Your task to perform on an android device: Open Amazon Image 0: 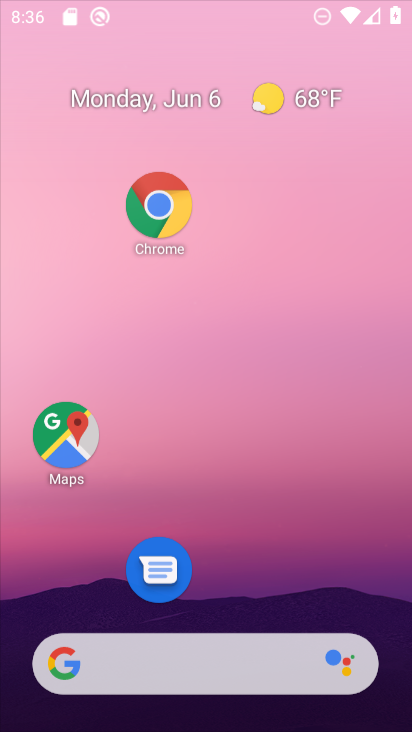
Step 0: click (214, 39)
Your task to perform on an android device: Open Amazon Image 1: 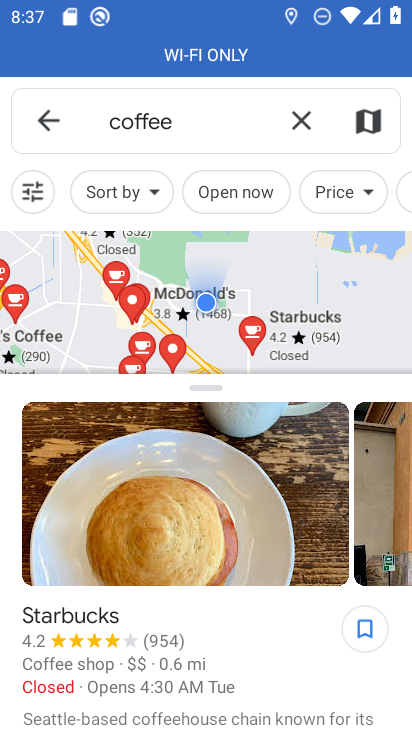
Step 1: click (32, 115)
Your task to perform on an android device: Open Amazon Image 2: 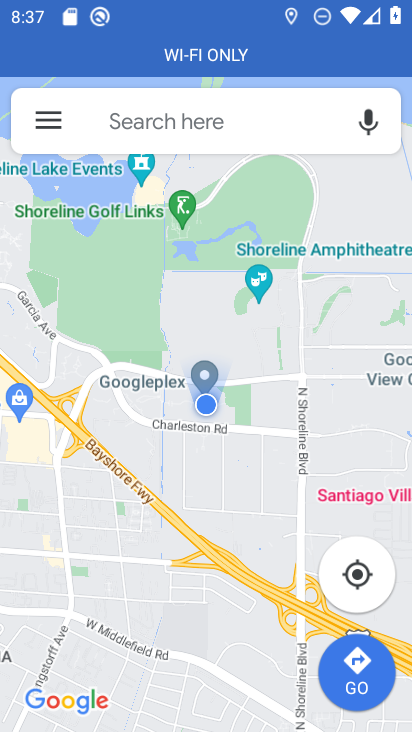
Step 2: press back button
Your task to perform on an android device: Open Amazon Image 3: 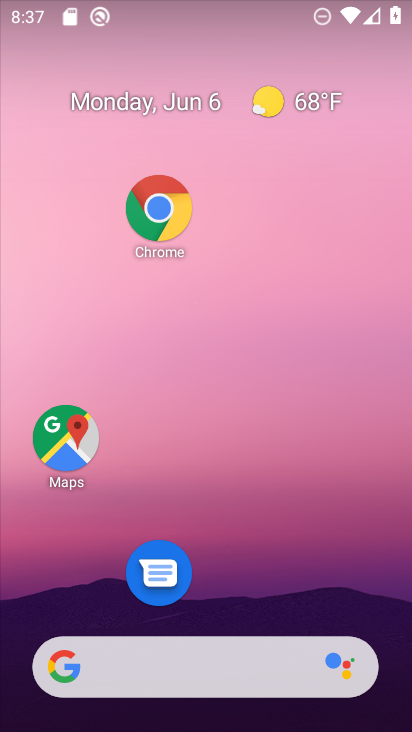
Step 3: drag from (229, 693) to (152, 22)
Your task to perform on an android device: Open Amazon Image 4: 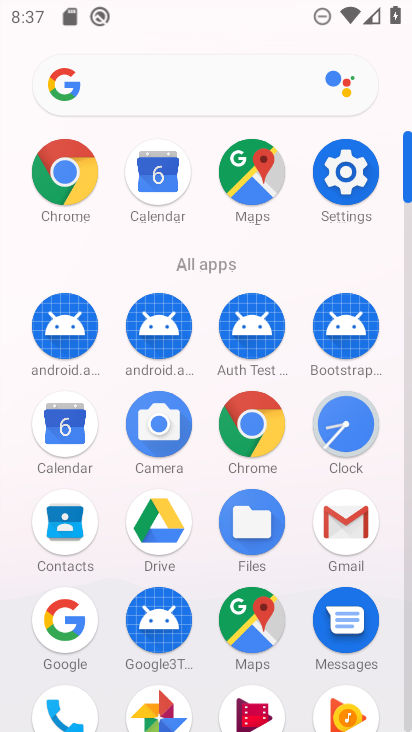
Step 4: click (74, 170)
Your task to perform on an android device: Open Amazon Image 5: 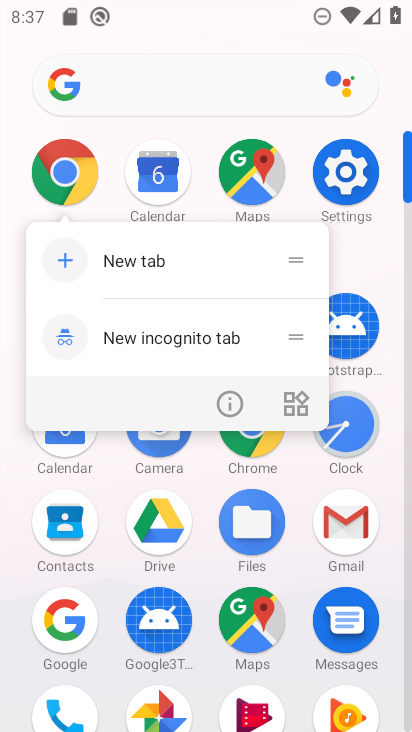
Step 5: click (153, 268)
Your task to perform on an android device: Open Amazon Image 6: 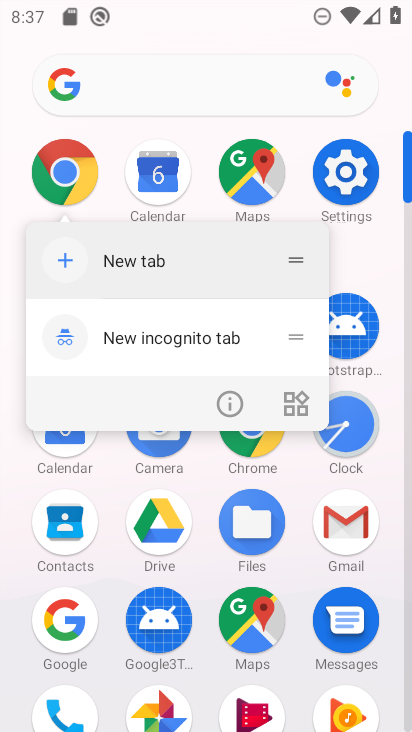
Step 6: click (153, 268)
Your task to perform on an android device: Open Amazon Image 7: 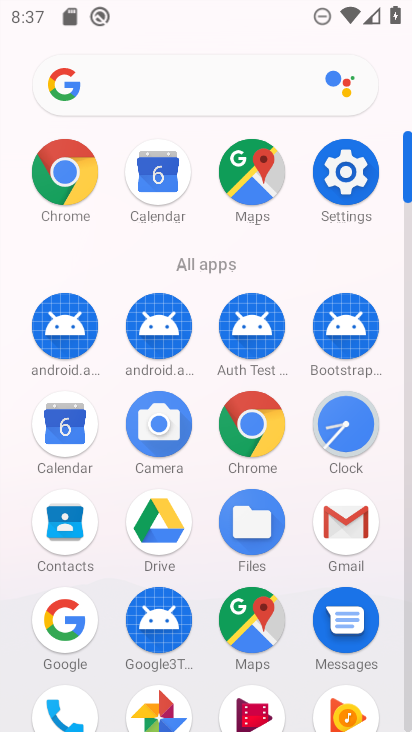
Step 7: click (153, 268)
Your task to perform on an android device: Open Amazon Image 8: 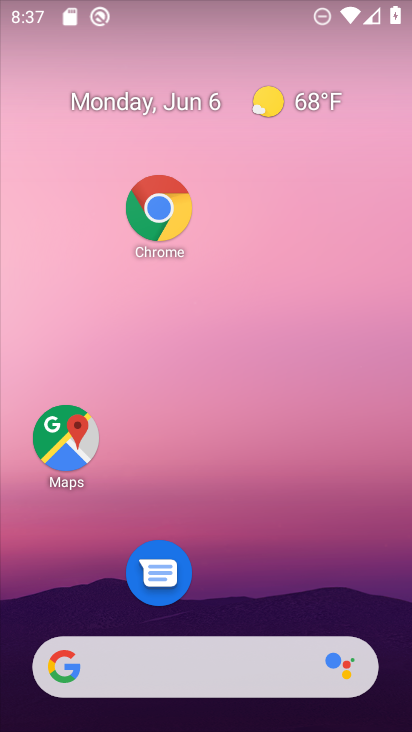
Step 8: drag from (230, 699) to (185, 162)
Your task to perform on an android device: Open Amazon Image 9: 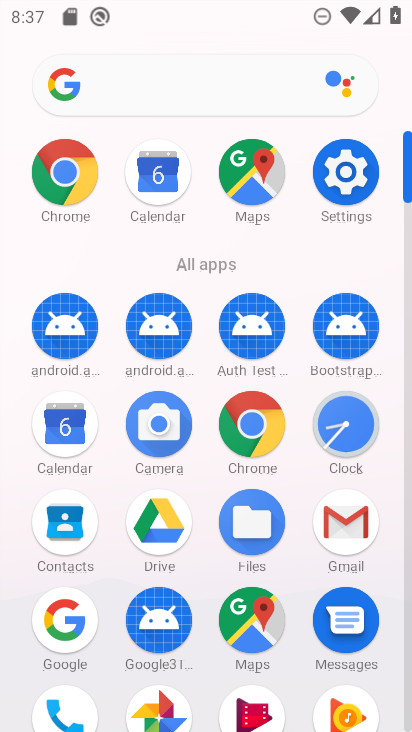
Step 9: click (58, 180)
Your task to perform on an android device: Open Amazon Image 10: 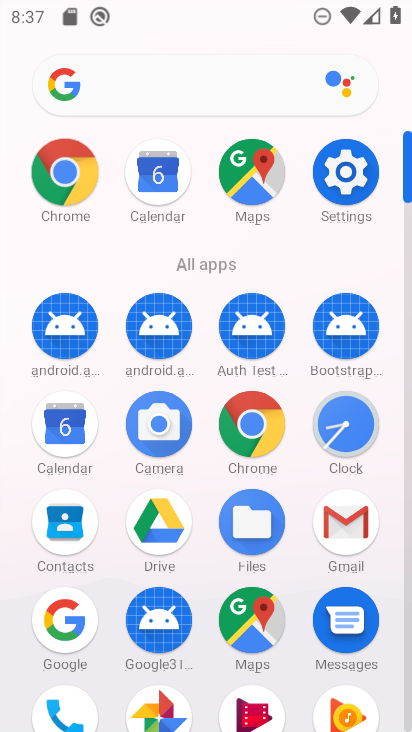
Step 10: click (65, 171)
Your task to perform on an android device: Open Amazon Image 11: 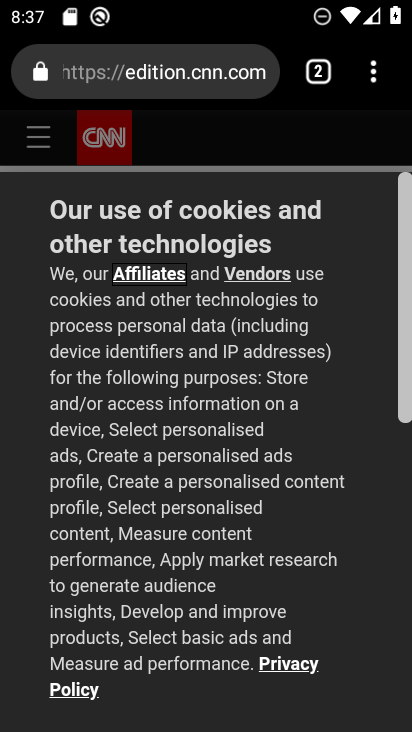
Step 11: click (369, 71)
Your task to perform on an android device: Open Amazon Image 12: 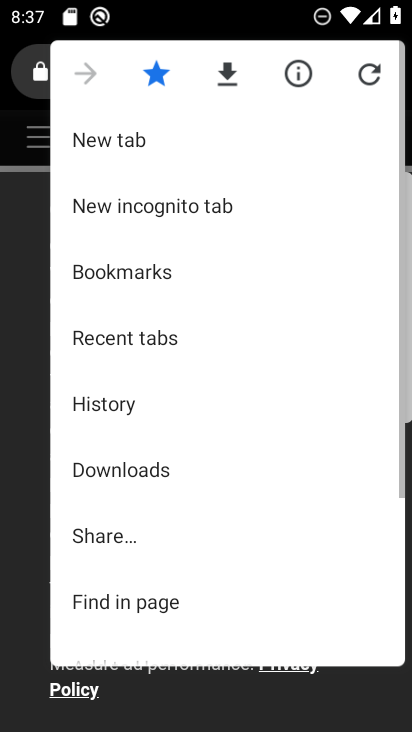
Step 12: drag from (369, 71) to (85, 130)
Your task to perform on an android device: Open Amazon Image 13: 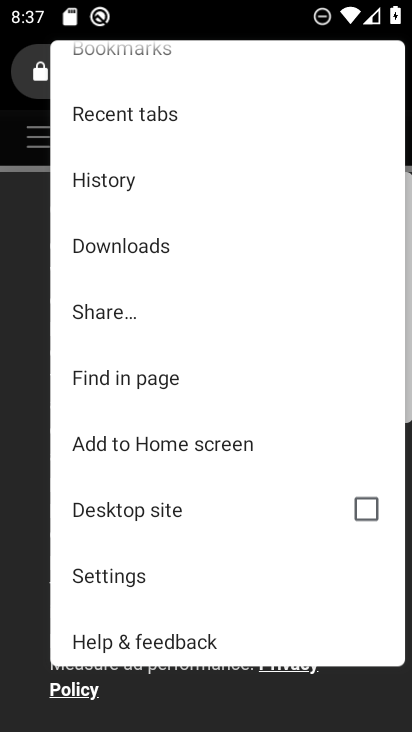
Step 13: drag from (205, 152) to (208, 455)
Your task to perform on an android device: Open Amazon Image 14: 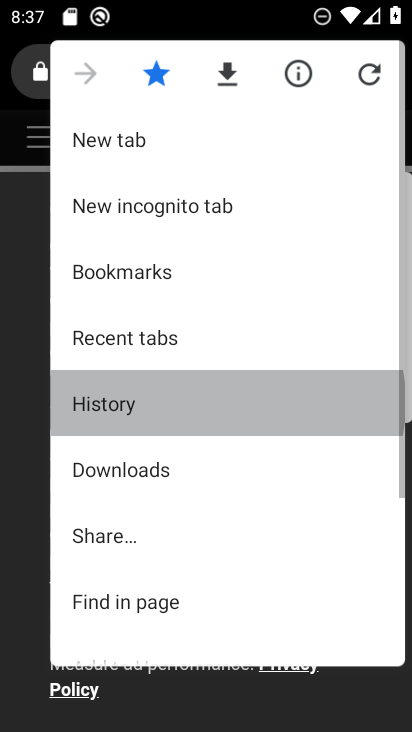
Step 14: drag from (139, 202) to (174, 496)
Your task to perform on an android device: Open Amazon Image 15: 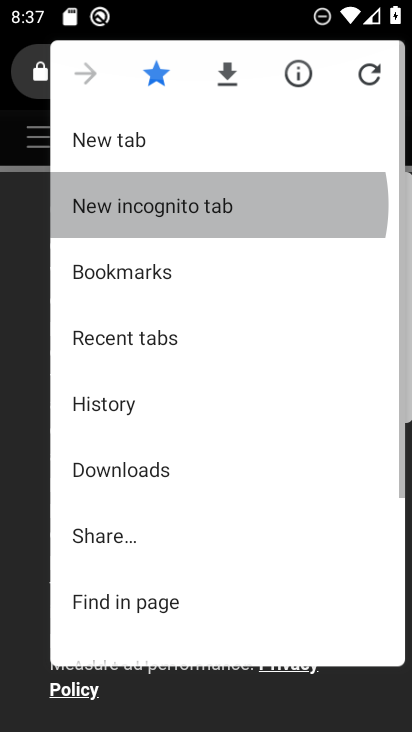
Step 15: drag from (168, 221) to (229, 486)
Your task to perform on an android device: Open Amazon Image 16: 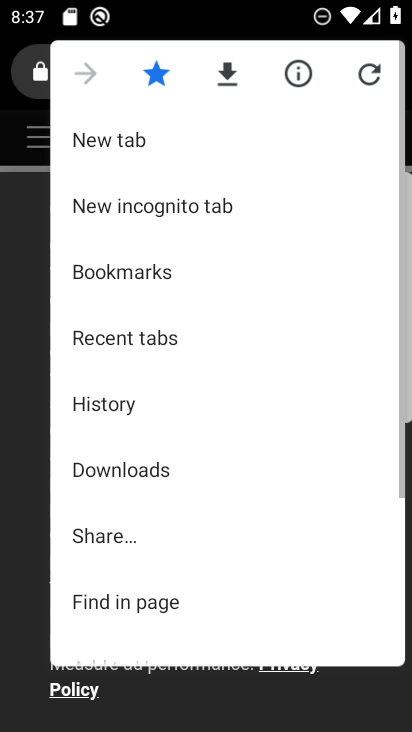
Step 16: click (107, 144)
Your task to perform on an android device: Open Amazon Image 17: 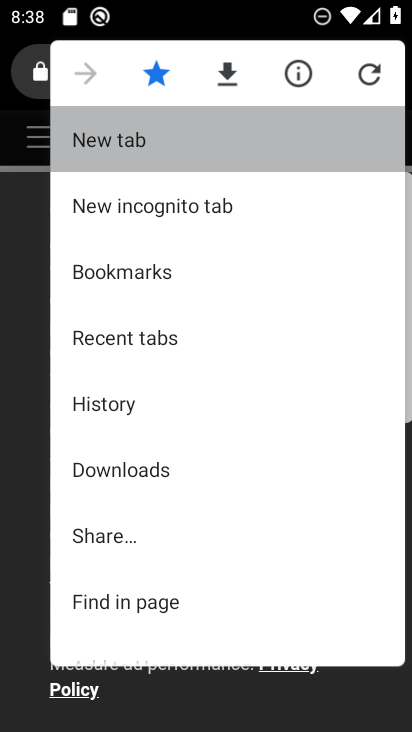
Step 17: click (107, 144)
Your task to perform on an android device: Open Amazon Image 18: 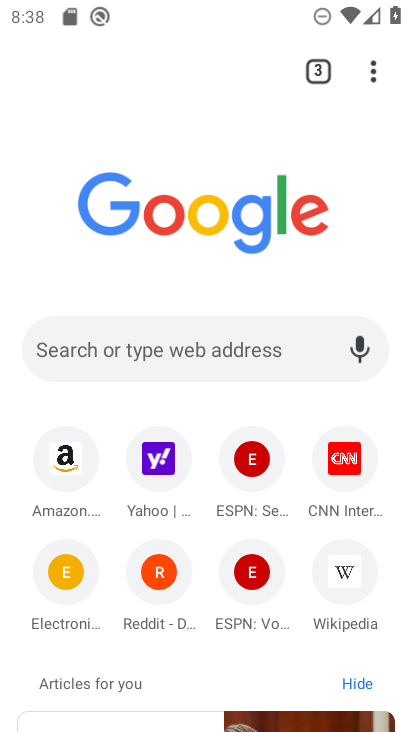
Step 18: click (72, 477)
Your task to perform on an android device: Open Amazon Image 19: 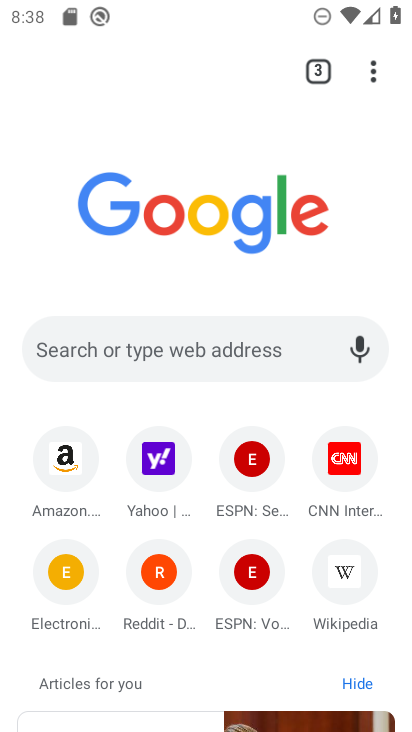
Step 19: click (72, 477)
Your task to perform on an android device: Open Amazon Image 20: 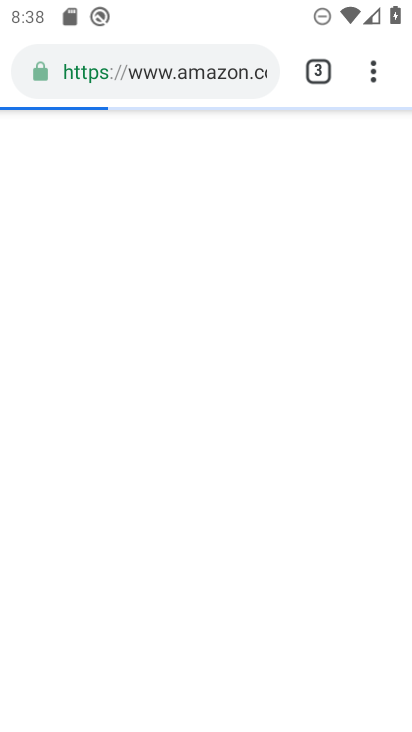
Step 20: click (72, 476)
Your task to perform on an android device: Open Amazon Image 21: 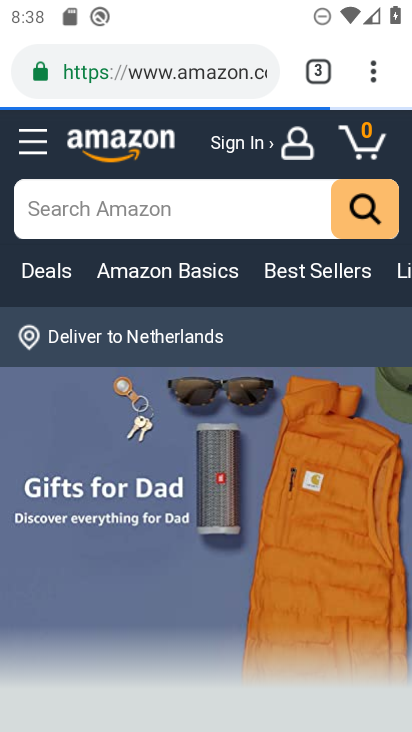
Step 21: task complete